Your task to perform on an android device: change timer sound Image 0: 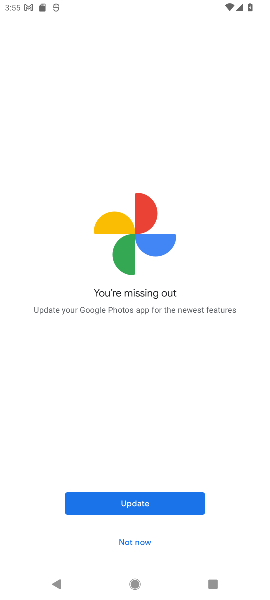
Step 0: press back button
Your task to perform on an android device: change timer sound Image 1: 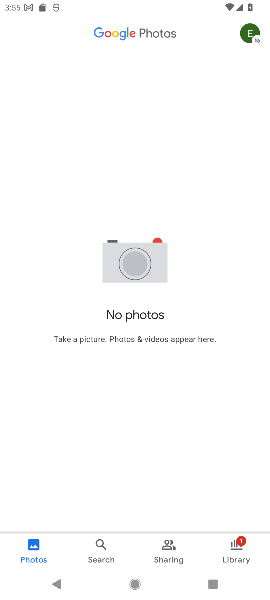
Step 1: press home button
Your task to perform on an android device: change timer sound Image 2: 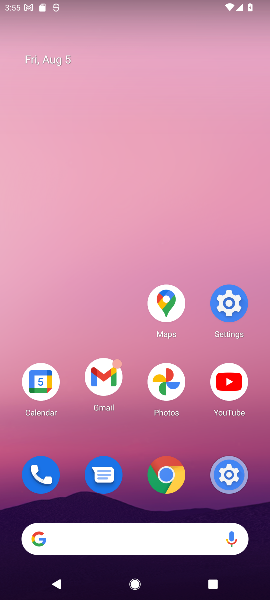
Step 2: drag from (256, 557) to (164, 131)
Your task to perform on an android device: change timer sound Image 3: 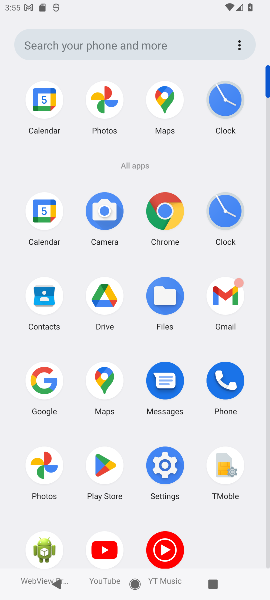
Step 3: drag from (220, 212) to (97, 297)
Your task to perform on an android device: change timer sound Image 4: 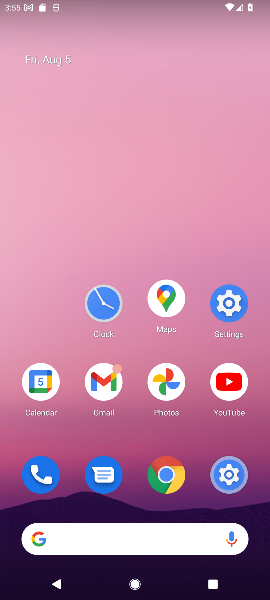
Step 4: click (88, 301)
Your task to perform on an android device: change timer sound Image 5: 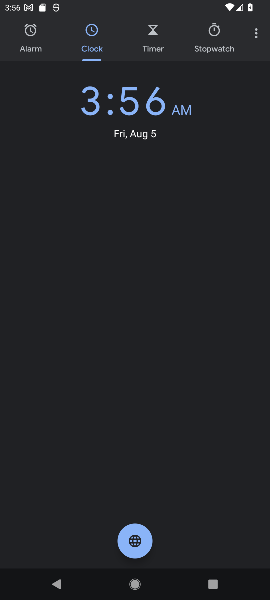
Step 5: click (257, 32)
Your task to perform on an android device: change timer sound Image 6: 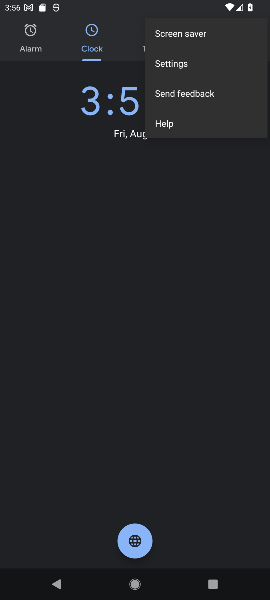
Step 6: click (175, 68)
Your task to perform on an android device: change timer sound Image 7: 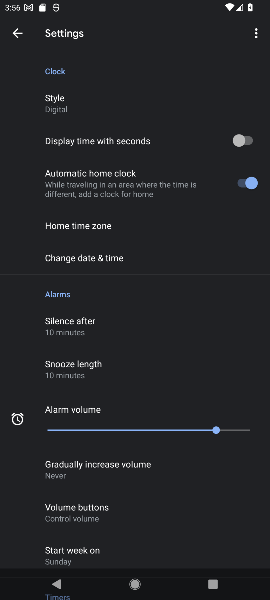
Step 7: drag from (178, 514) to (207, 279)
Your task to perform on an android device: change timer sound Image 8: 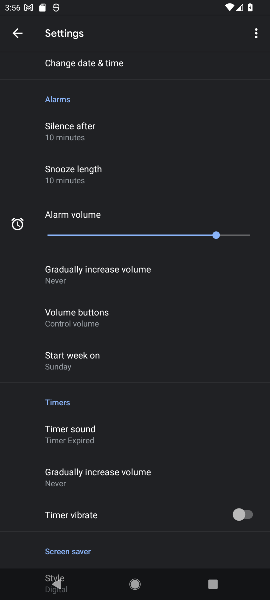
Step 8: click (54, 443)
Your task to perform on an android device: change timer sound Image 9: 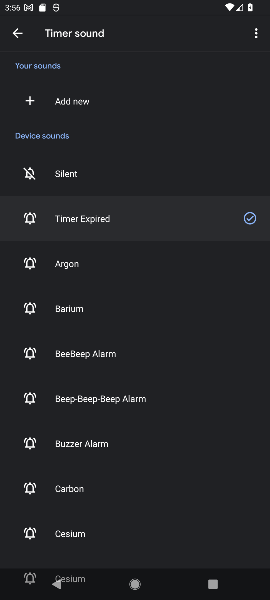
Step 9: click (20, 265)
Your task to perform on an android device: change timer sound Image 10: 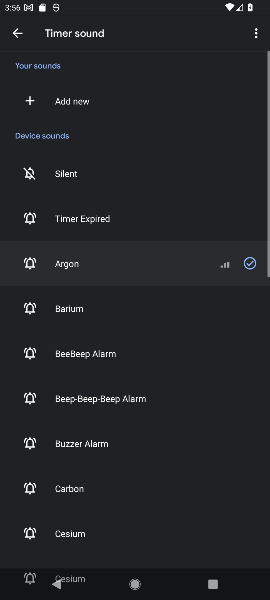
Step 10: task complete